Your task to perform on an android device: open app "File Manager" (install if not already installed) Image 0: 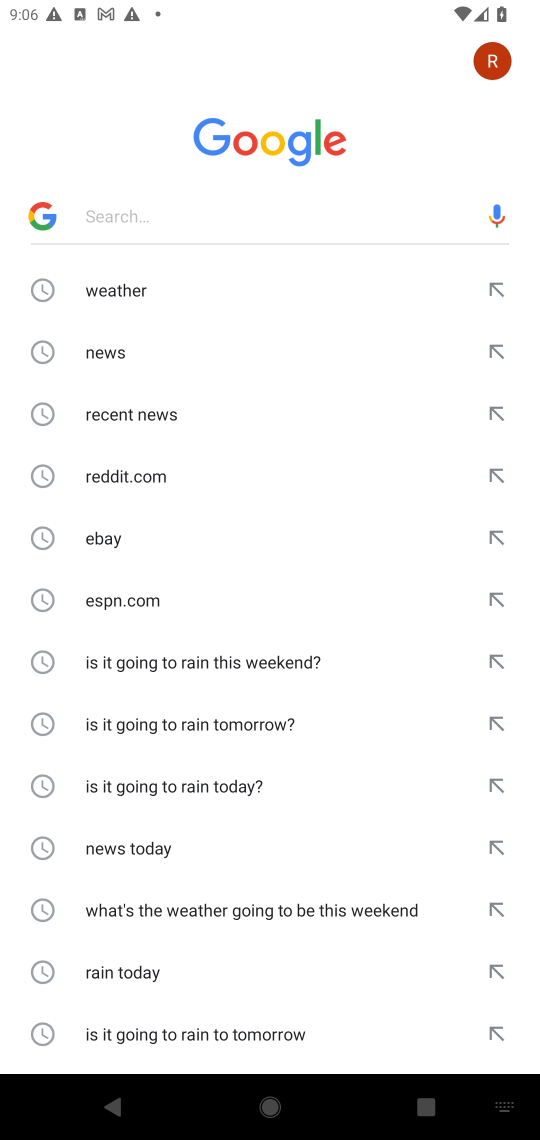
Step 0: press back button
Your task to perform on an android device: open app "File Manager" (install if not already installed) Image 1: 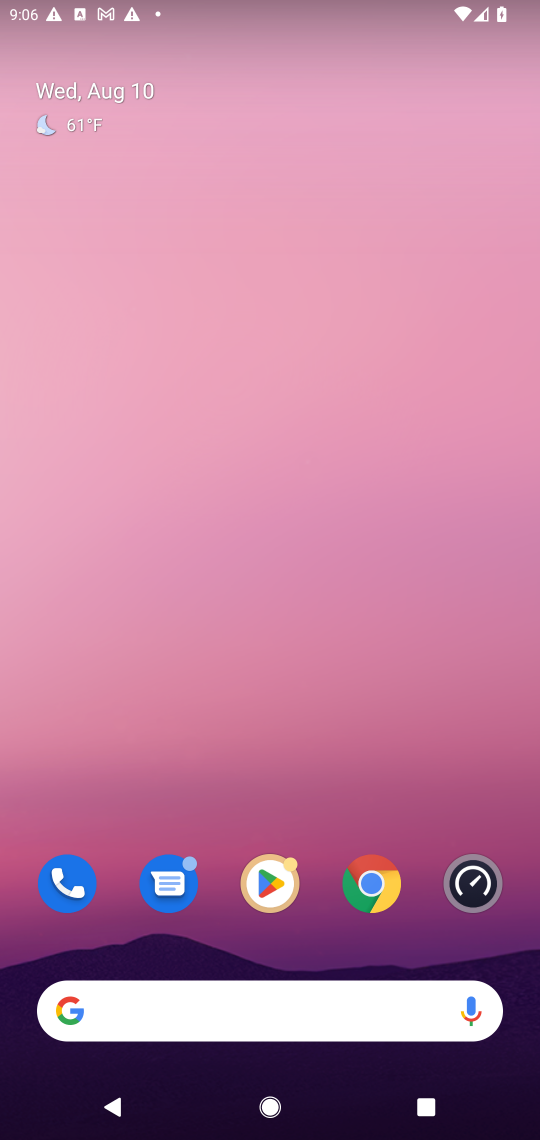
Step 1: press back button
Your task to perform on an android device: open app "File Manager" (install if not already installed) Image 2: 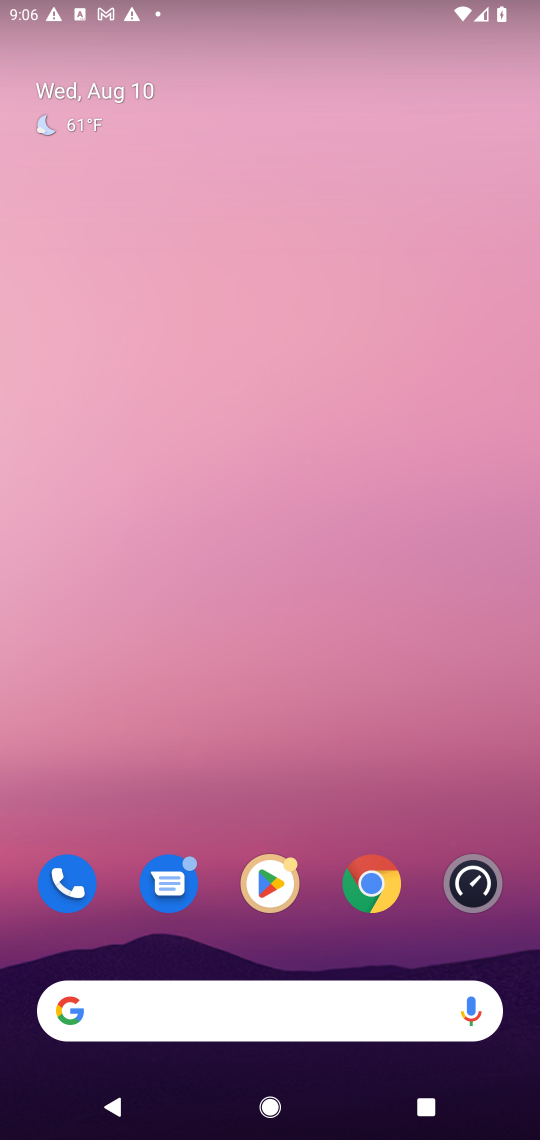
Step 2: click (275, 897)
Your task to perform on an android device: open app "File Manager" (install if not already installed) Image 3: 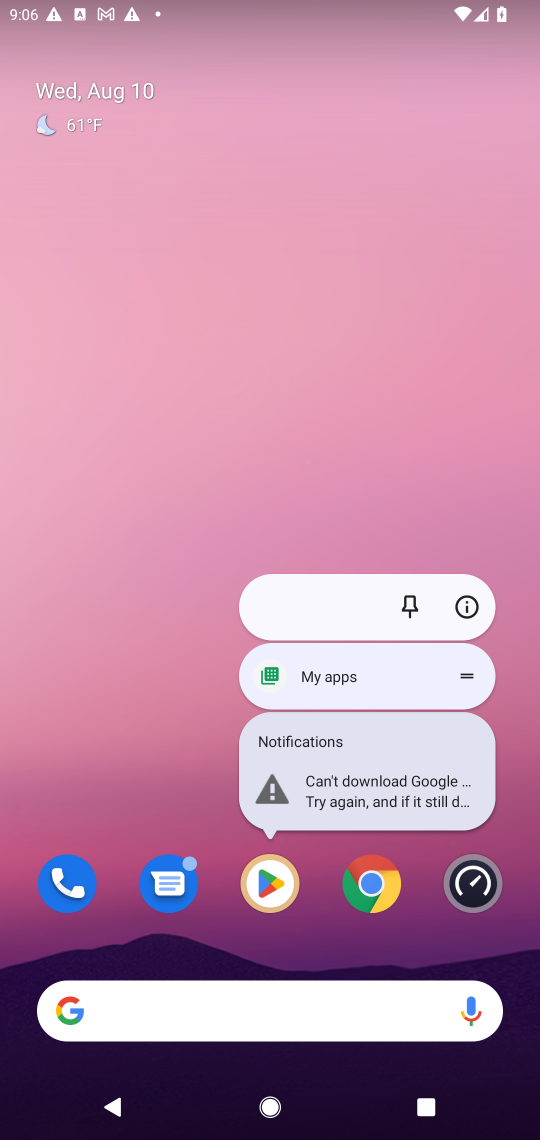
Step 3: click (275, 897)
Your task to perform on an android device: open app "File Manager" (install if not already installed) Image 4: 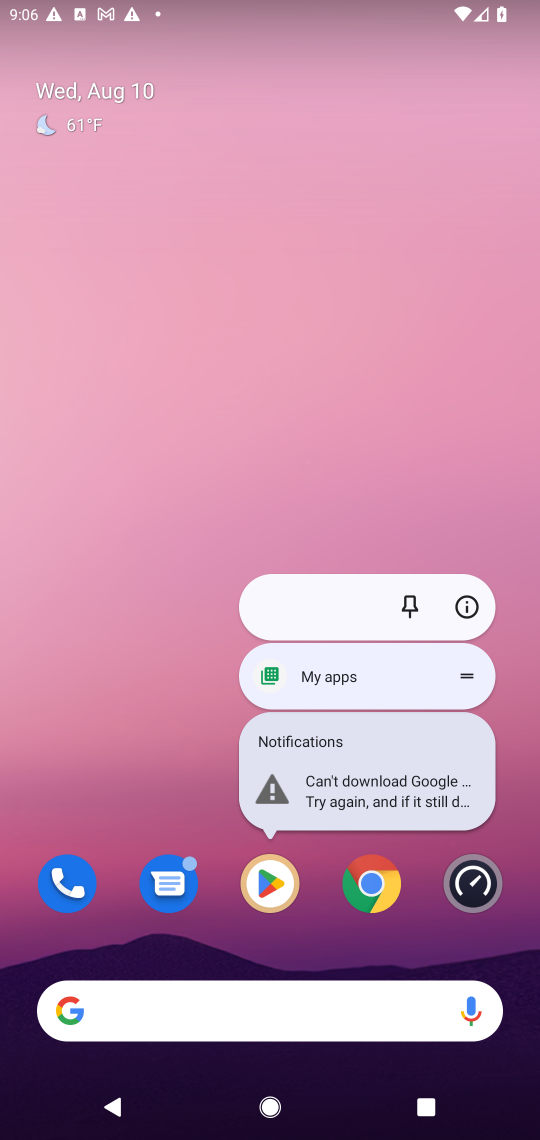
Step 4: click (275, 897)
Your task to perform on an android device: open app "File Manager" (install if not already installed) Image 5: 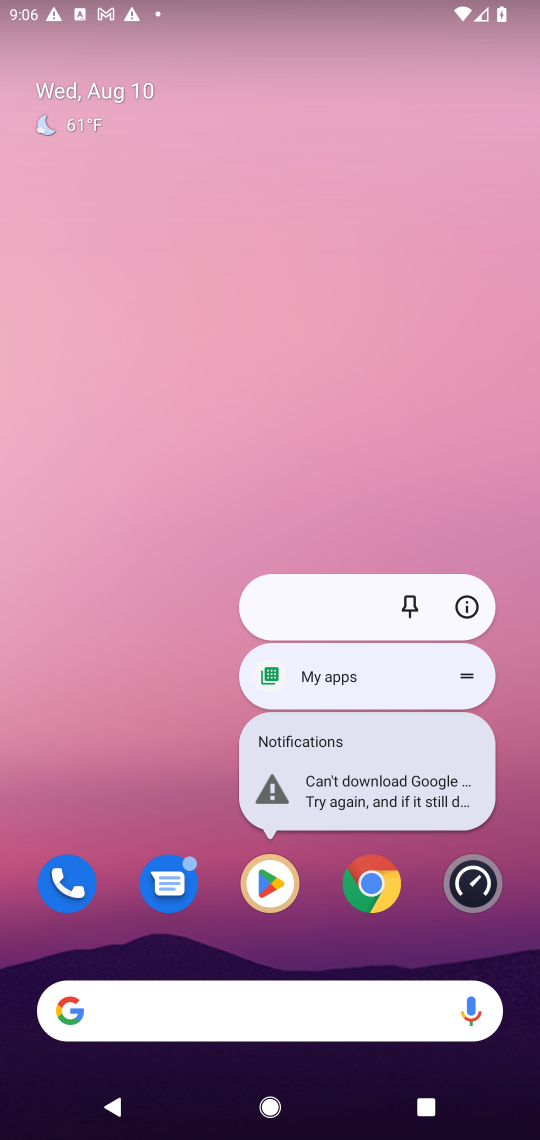
Step 5: click (275, 897)
Your task to perform on an android device: open app "File Manager" (install if not already installed) Image 6: 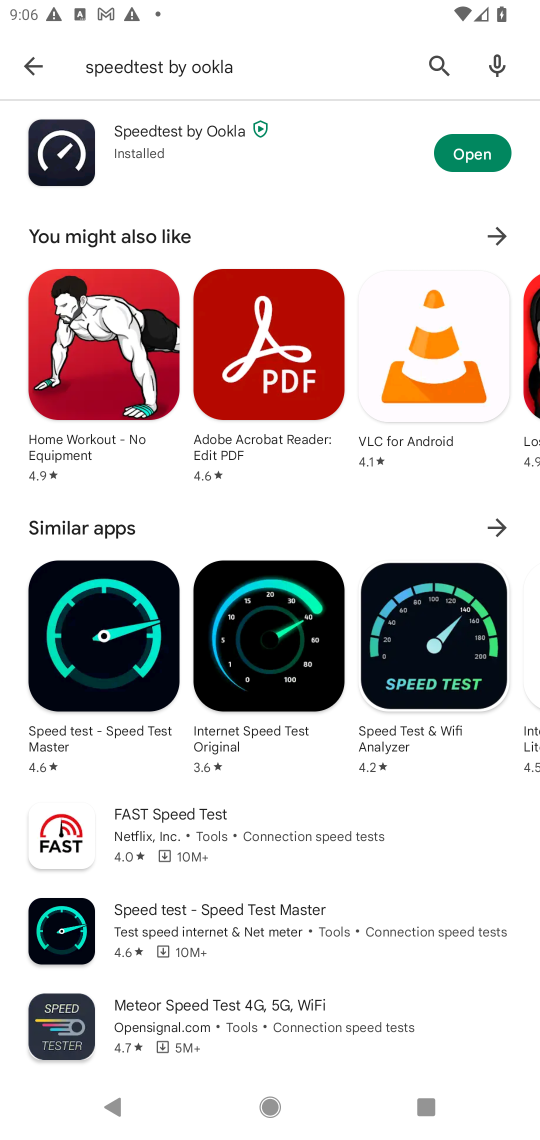
Step 6: click (430, 59)
Your task to perform on an android device: open app "File Manager" (install if not already installed) Image 7: 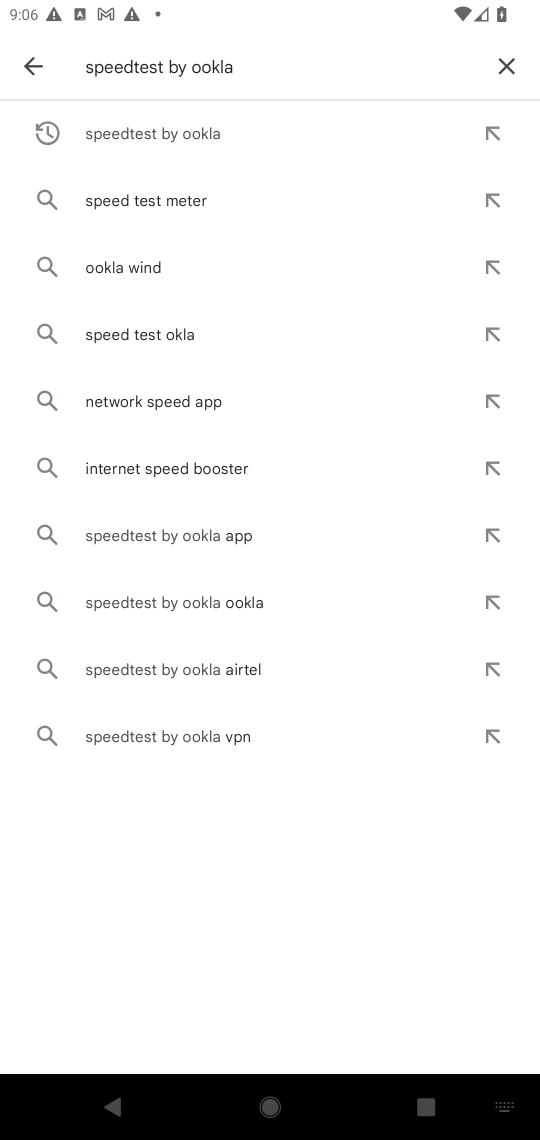
Step 7: click (507, 61)
Your task to perform on an android device: open app "File Manager" (install if not already installed) Image 8: 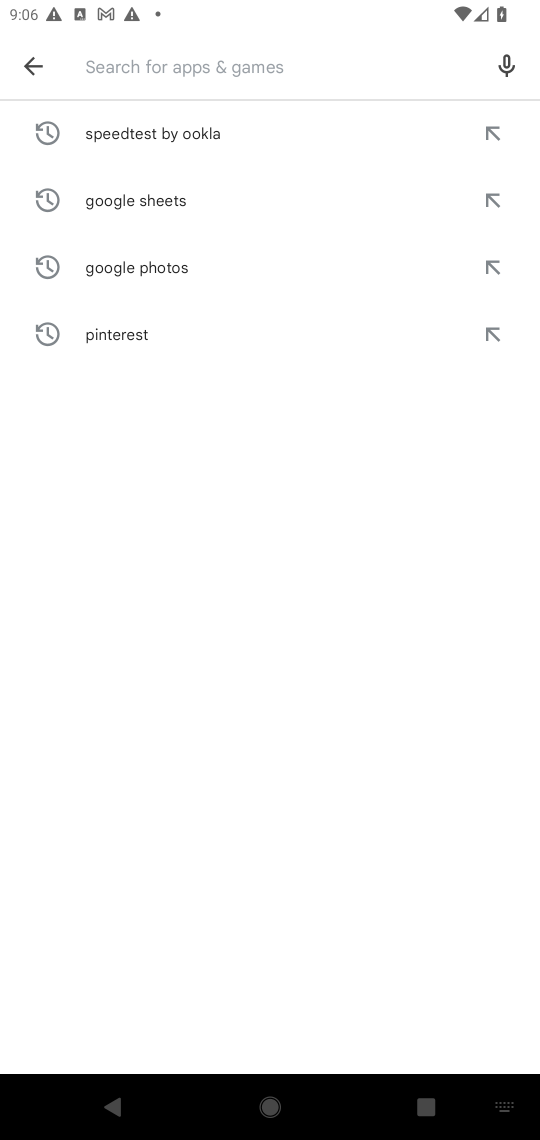
Step 8: type "File Manager"
Your task to perform on an android device: open app "File Manager" (install if not already installed) Image 9: 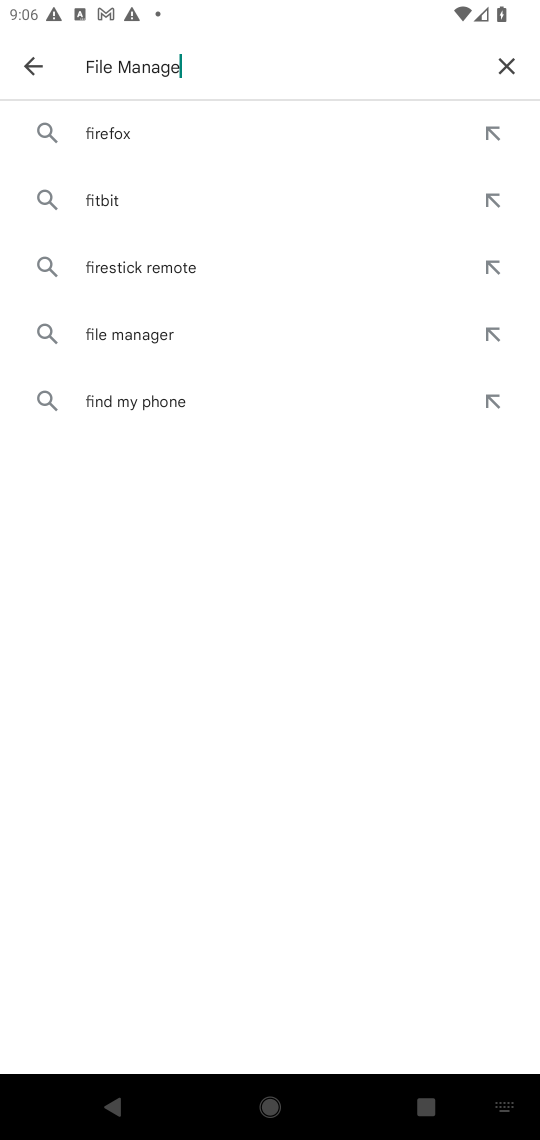
Step 9: type ""
Your task to perform on an android device: open app "File Manager" (install if not already installed) Image 10: 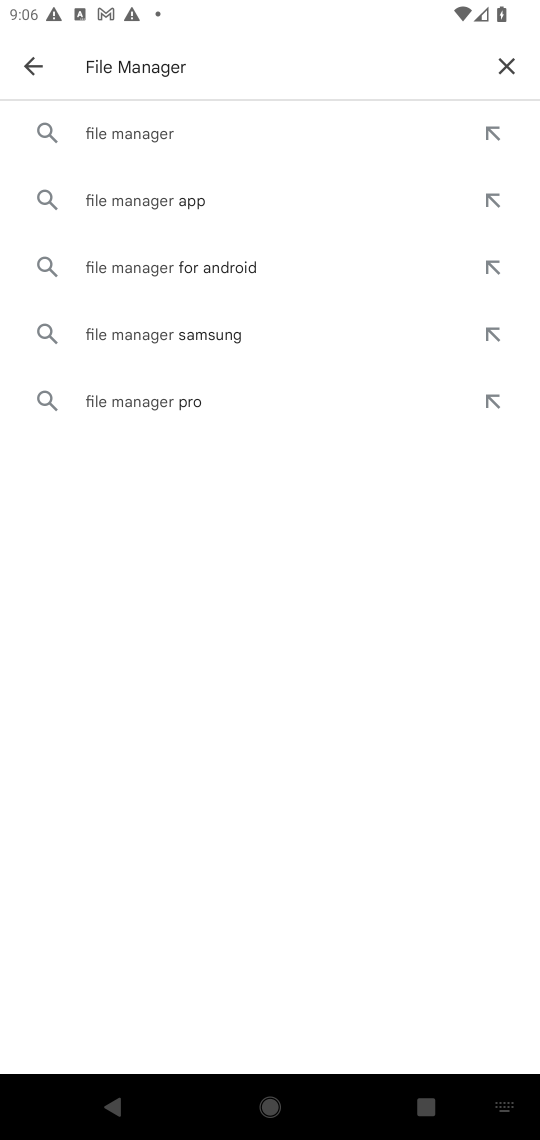
Step 10: click (154, 137)
Your task to perform on an android device: open app "File Manager" (install if not already installed) Image 11: 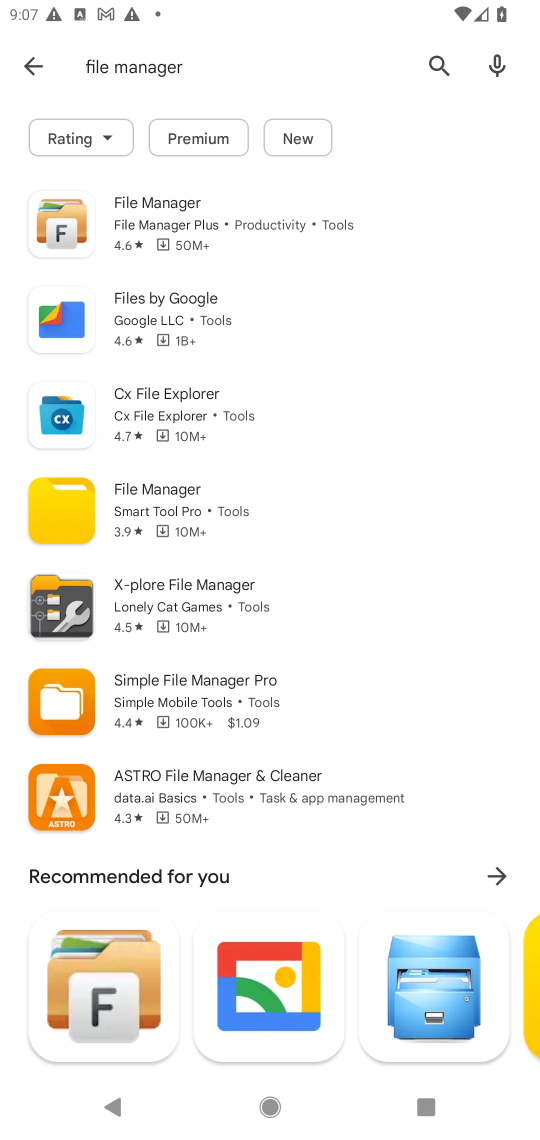
Step 11: click (231, 242)
Your task to perform on an android device: open app "File Manager" (install if not already installed) Image 12: 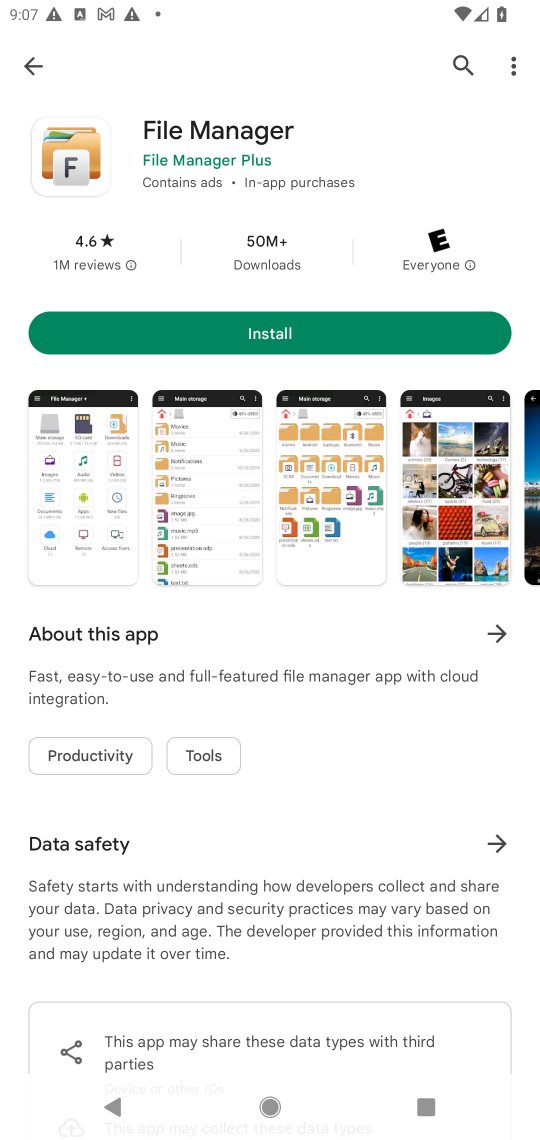
Step 12: click (291, 338)
Your task to perform on an android device: open app "File Manager" (install if not already installed) Image 13: 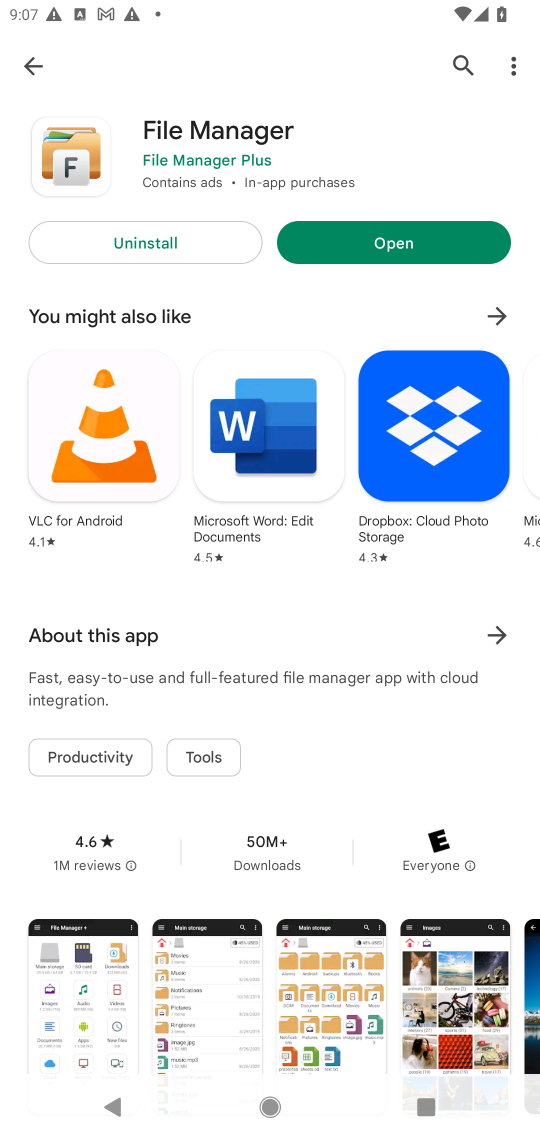
Step 13: click (394, 245)
Your task to perform on an android device: open app "File Manager" (install if not already installed) Image 14: 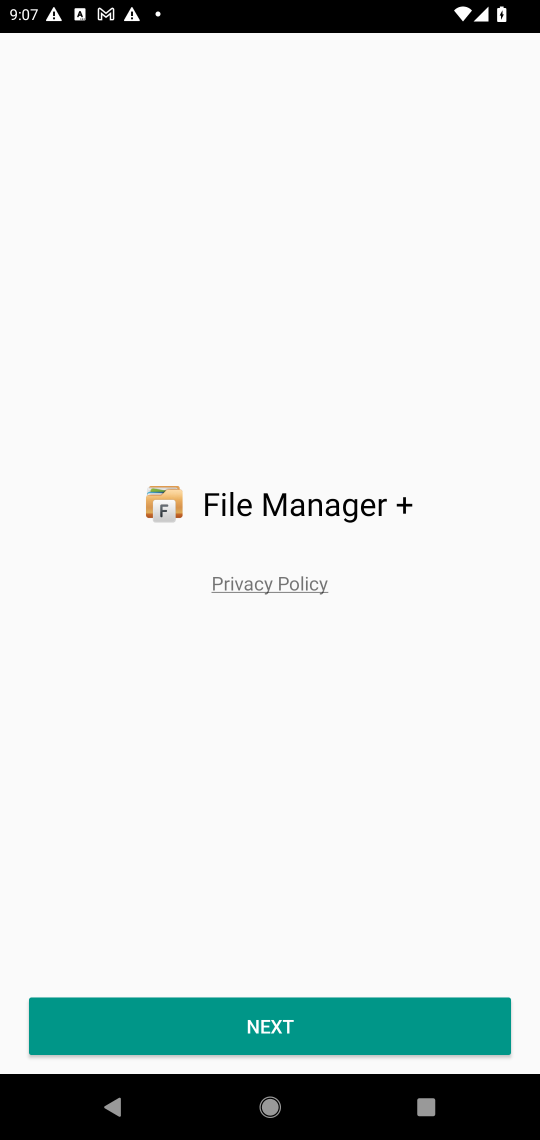
Step 14: task complete